Your task to perform on an android device: Open Wikipedia Image 0: 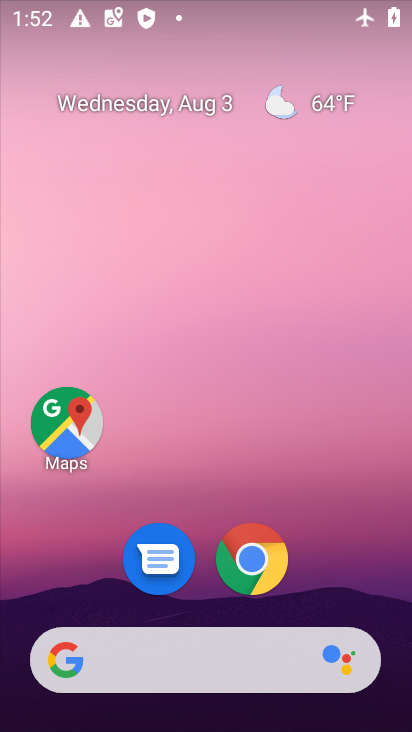
Step 0: click (255, 563)
Your task to perform on an android device: Open Wikipedia Image 1: 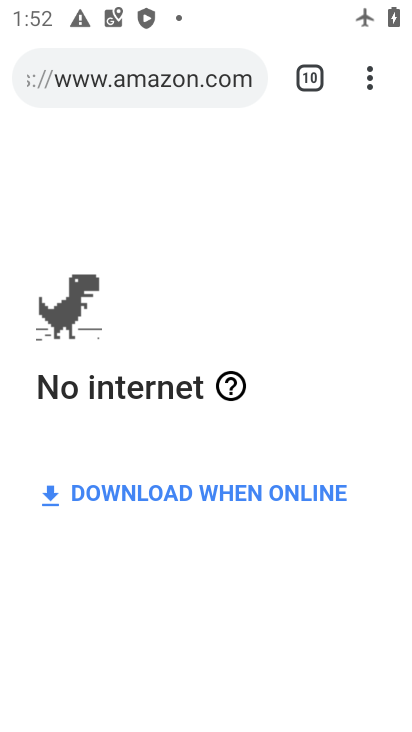
Step 1: task complete